Your task to perform on an android device: Open Chrome and go to settings Image 0: 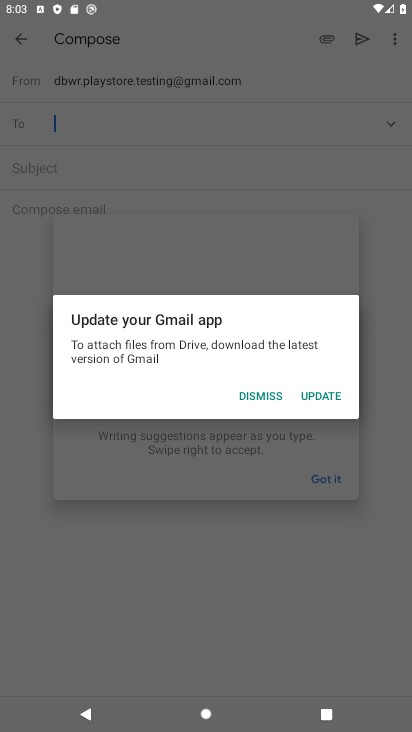
Step 0: press home button
Your task to perform on an android device: Open Chrome and go to settings Image 1: 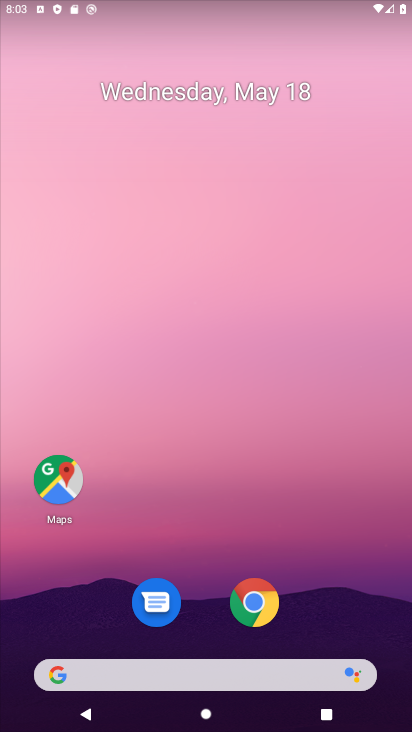
Step 1: click (261, 601)
Your task to perform on an android device: Open Chrome and go to settings Image 2: 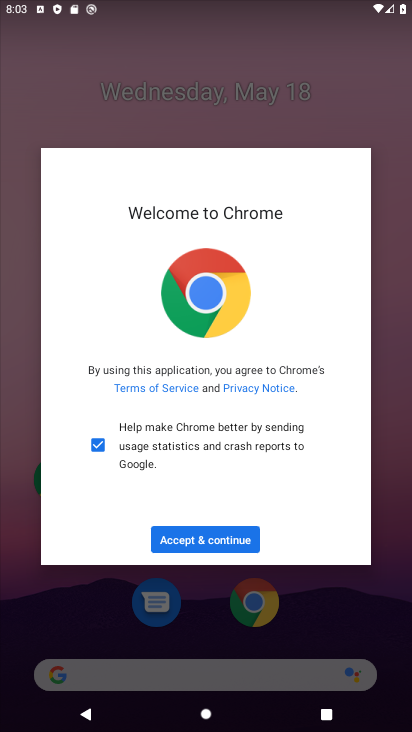
Step 2: click (247, 537)
Your task to perform on an android device: Open Chrome and go to settings Image 3: 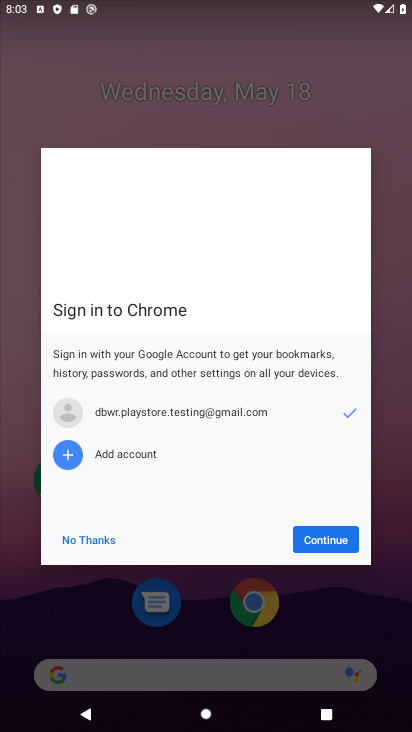
Step 3: click (314, 534)
Your task to perform on an android device: Open Chrome and go to settings Image 4: 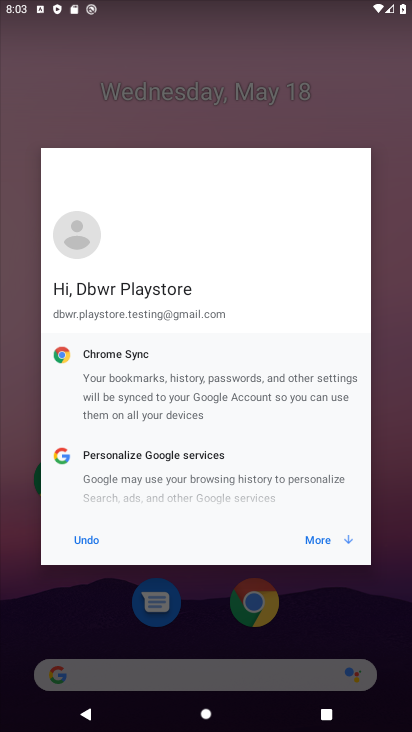
Step 4: click (320, 537)
Your task to perform on an android device: Open Chrome and go to settings Image 5: 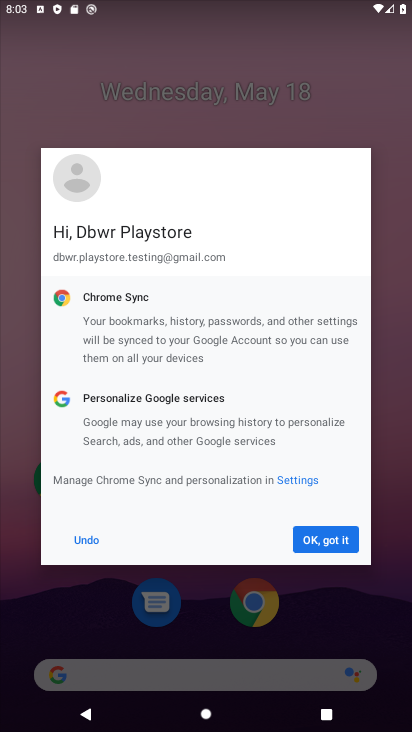
Step 5: click (320, 536)
Your task to perform on an android device: Open Chrome and go to settings Image 6: 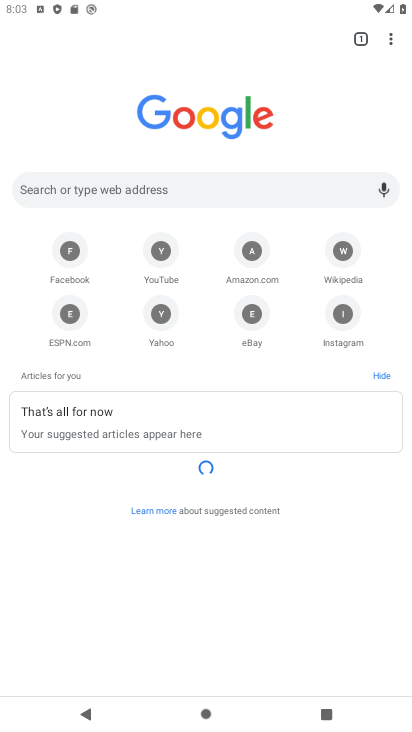
Step 6: click (391, 33)
Your task to perform on an android device: Open Chrome and go to settings Image 7: 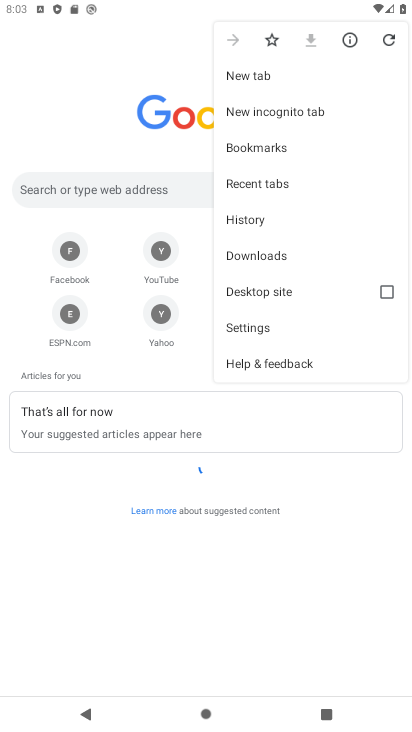
Step 7: click (270, 323)
Your task to perform on an android device: Open Chrome and go to settings Image 8: 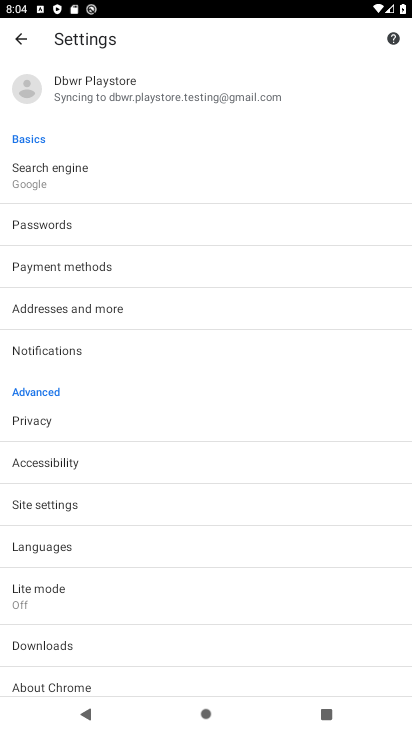
Step 8: task complete